Your task to perform on an android device: Go to Yahoo.com Image 0: 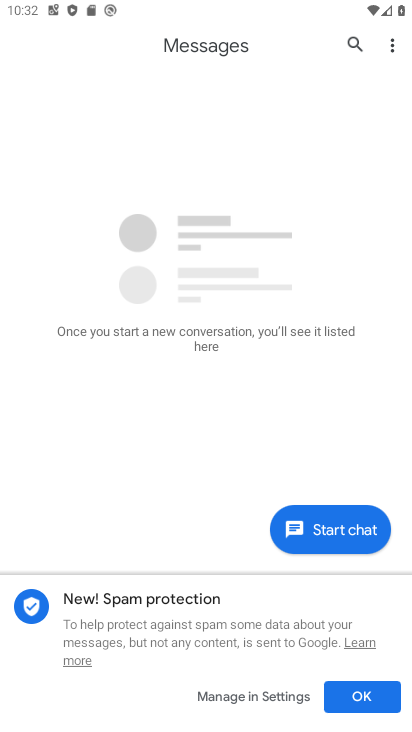
Step 0: press home button
Your task to perform on an android device: Go to Yahoo.com Image 1: 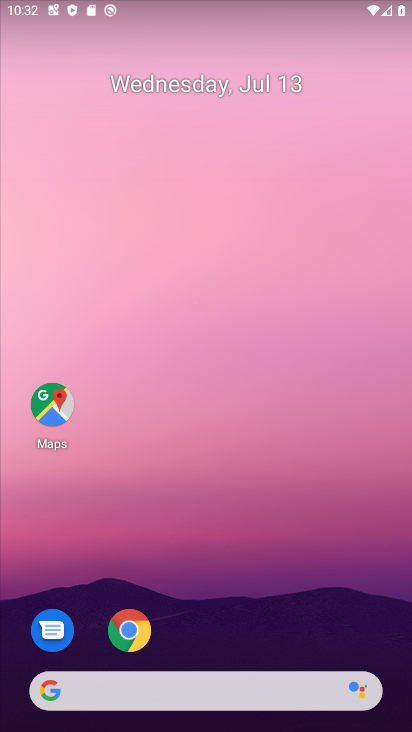
Step 1: drag from (219, 652) to (134, 6)
Your task to perform on an android device: Go to Yahoo.com Image 2: 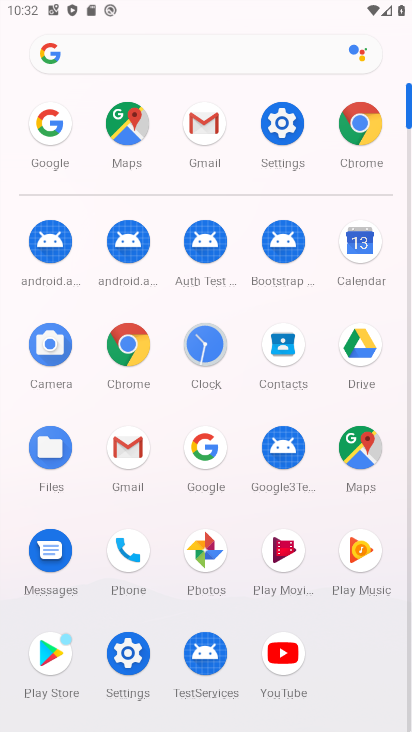
Step 2: click (353, 117)
Your task to perform on an android device: Go to Yahoo.com Image 3: 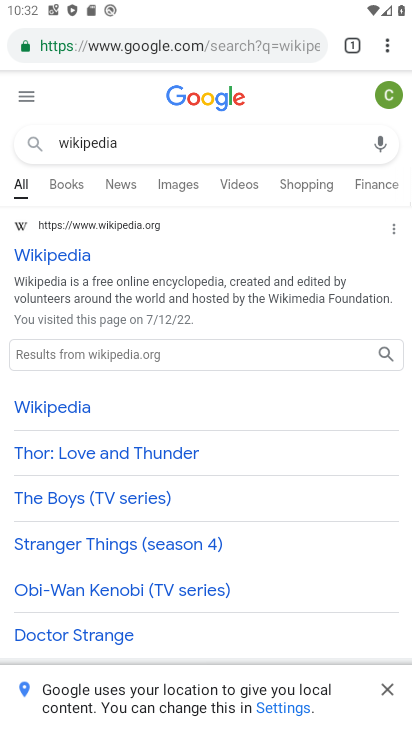
Step 3: click (243, 49)
Your task to perform on an android device: Go to Yahoo.com Image 4: 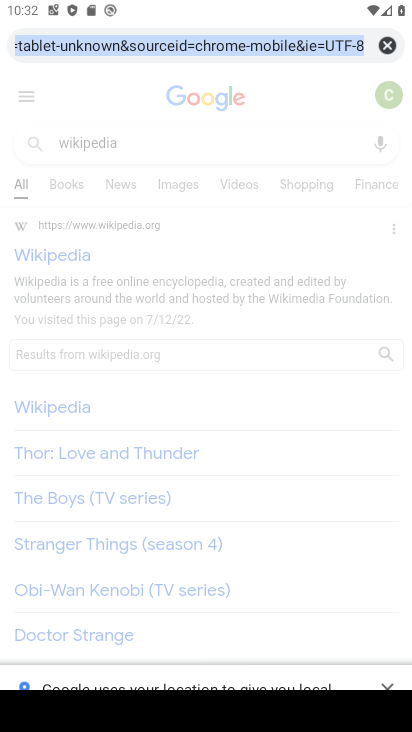
Step 4: click (391, 49)
Your task to perform on an android device: Go to Yahoo.com Image 5: 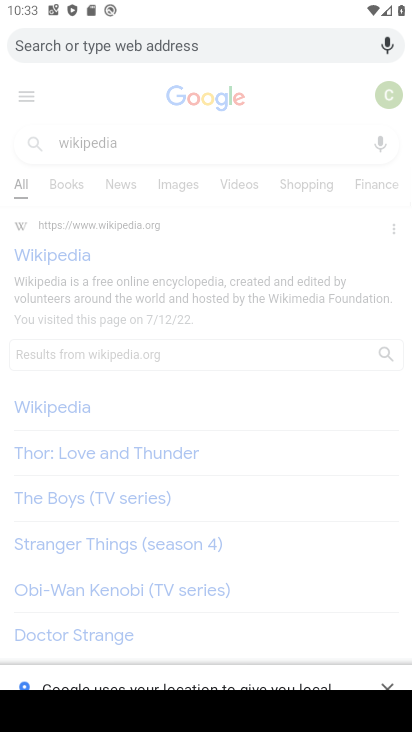
Step 5: type "Yahoo.com"
Your task to perform on an android device: Go to Yahoo.com Image 6: 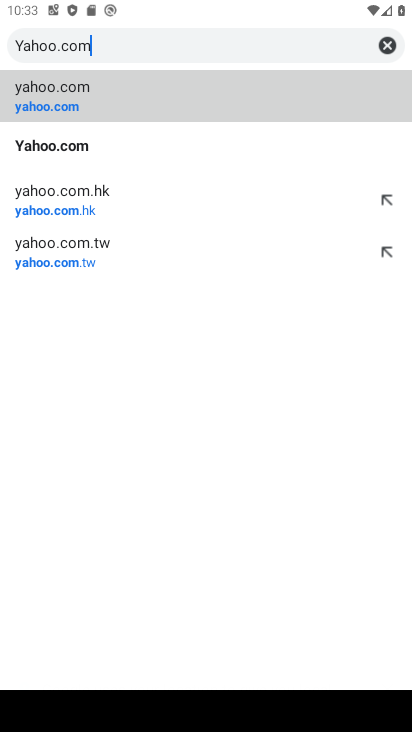
Step 6: press enter
Your task to perform on an android device: Go to Yahoo.com Image 7: 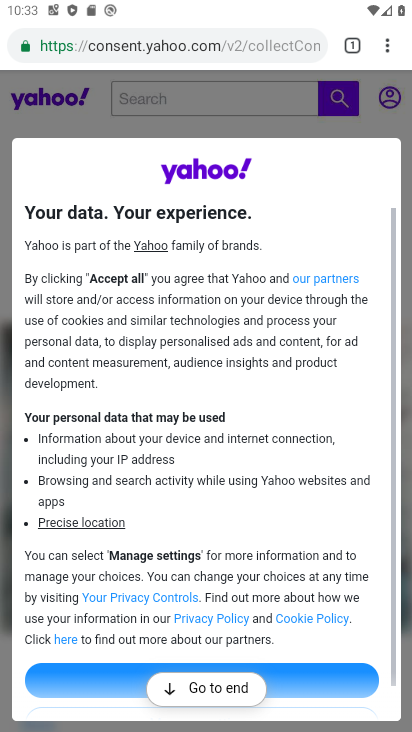
Step 7: task complete